Your task to perform on an android device: allow notifications from all sites in the chrome app Image 0: 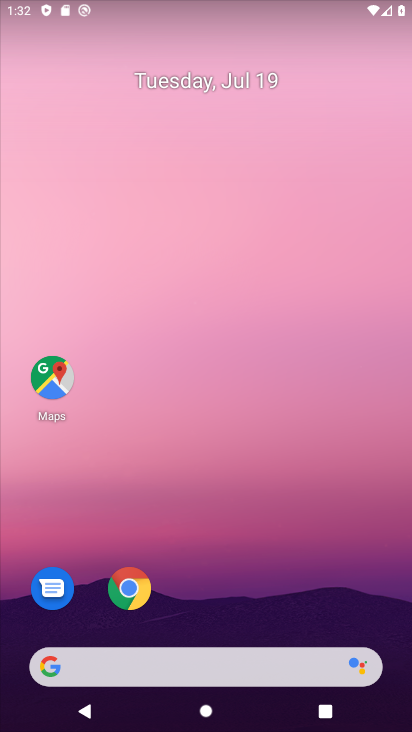
Step 0: drag from (283, 619) to (256, 179)
Your task to perform on an android device: allow notifications from all sites in the chrome app Image 1: 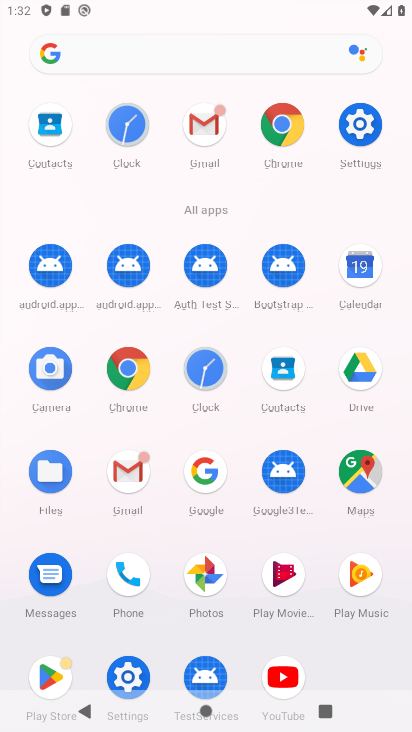
Step 1: click (283, 127)
Your task to perform on an android device: allow notifications from all sites in the chrome app Image 2: 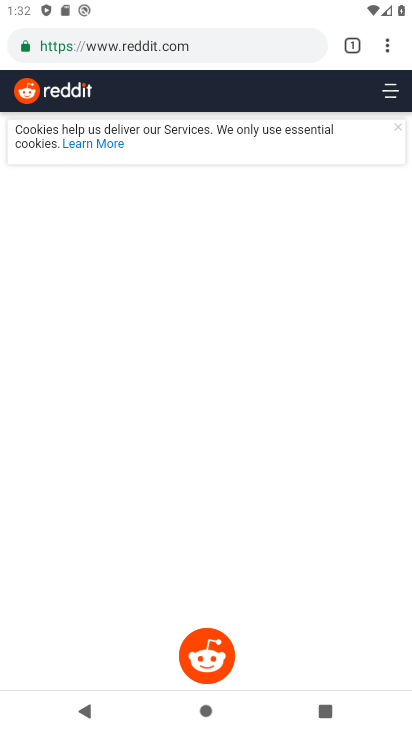
Step 2: click (384, 46)
Your task to perform on an android device: allow notifications from all sites in the chrome app Image 3: 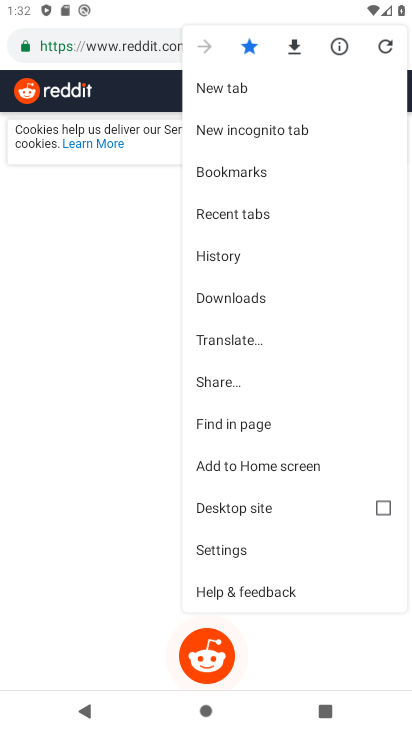
Step 3: click (242, 547)
Your task to perform on an android device: allow notifications from all sites in the chrome app Image 4: 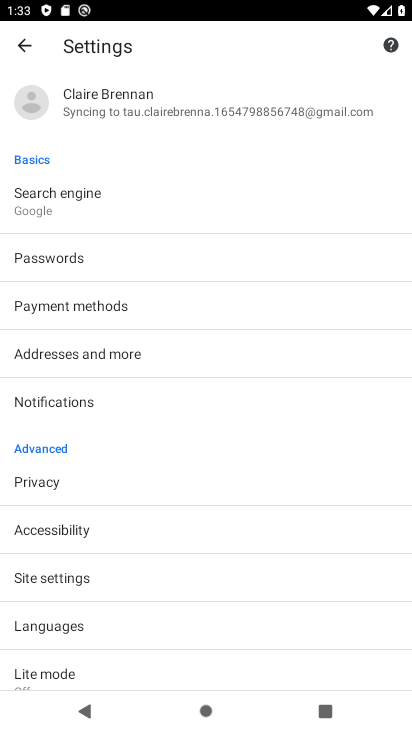
Step 4: click (141, 582)
Your task to perform on an android device: allow notifications from all sites in the chrome app Image 5: 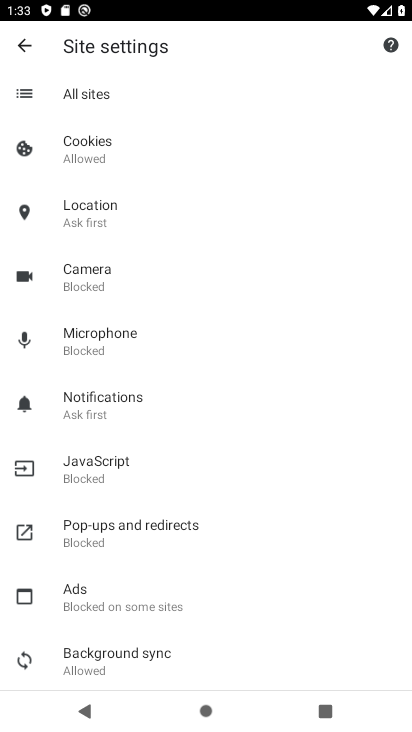
Step 5: click (142, 411)
Your task to perform on an android device: allow notifications from all sites in the chrome app Image 6: 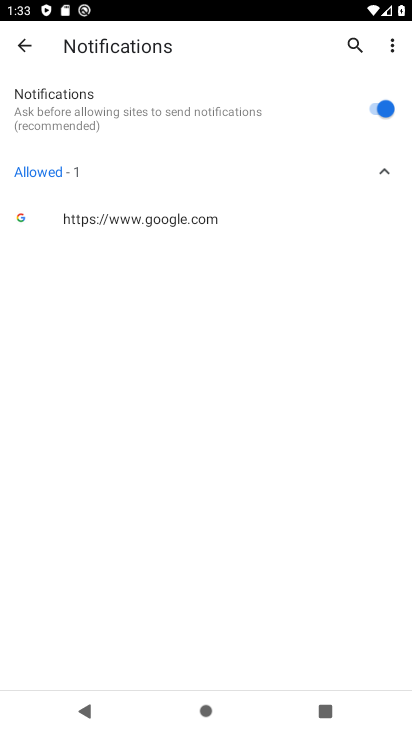
Step 6: task complete